Your task to perform on an android device: change notifications settings Image 0: 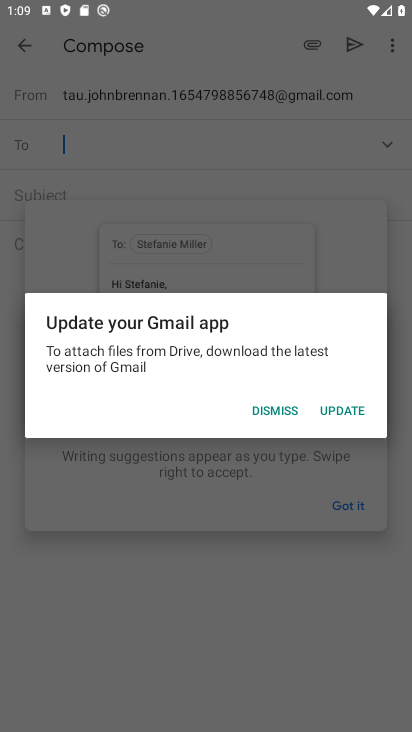
Step 0: press home button
Your task to perform on an android device: change notifications settings Image 1: 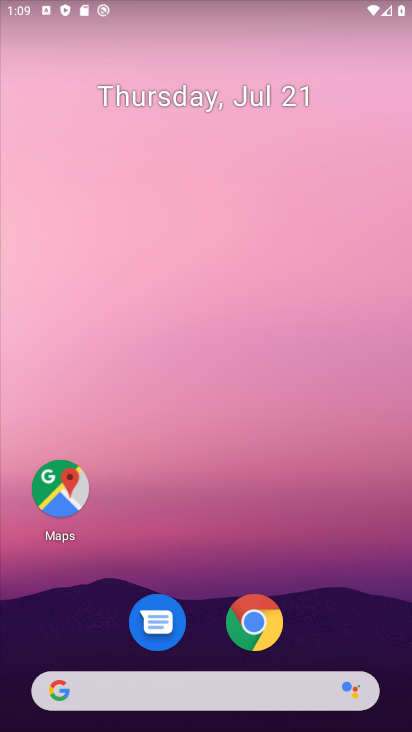
Step 1: drag from (234, 712) to (299, 202)
Your task to perform on an android device: change notifications settings Image 2: 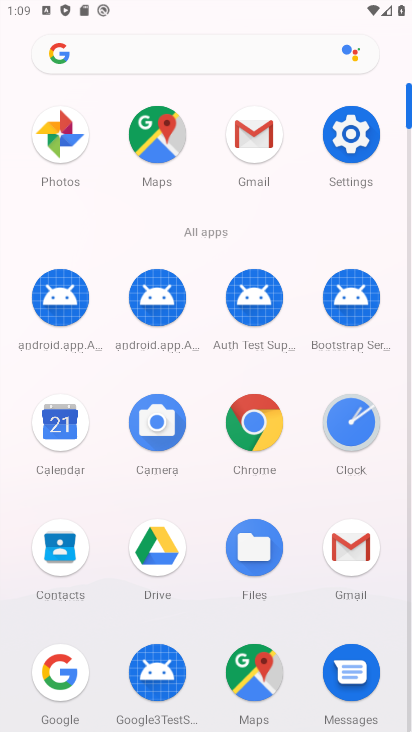
Step 2: click (355, 143)
Your task to perform on an android device: change notifications settings Image 3: 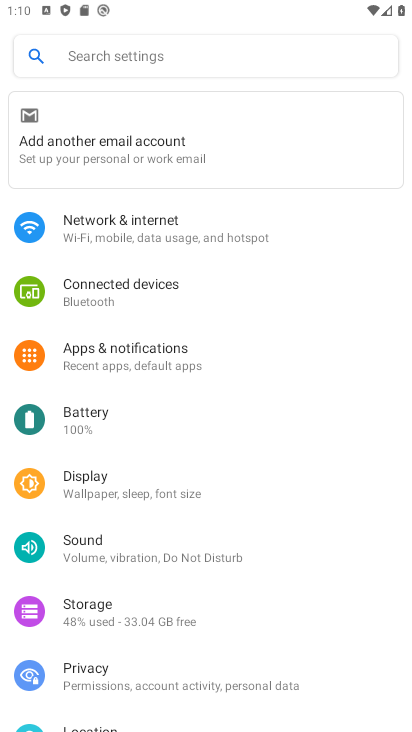
Step 3: click (105, 58)
Your task to perform on an android device: change notifications settings Image 4: 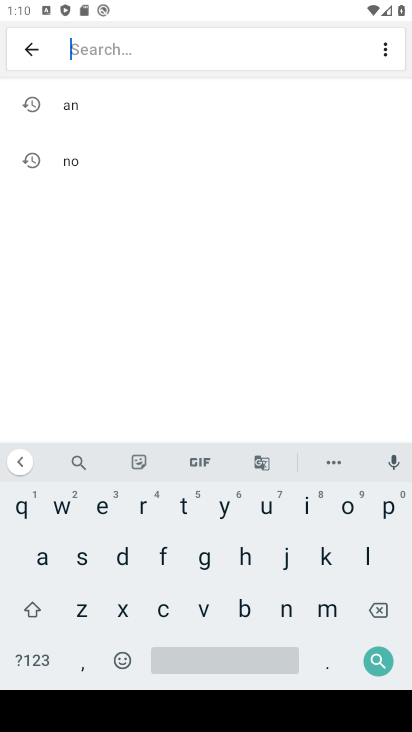
Step 4: click (94, 161)
Your task to perform on an android device: change notifications settings Image 5: 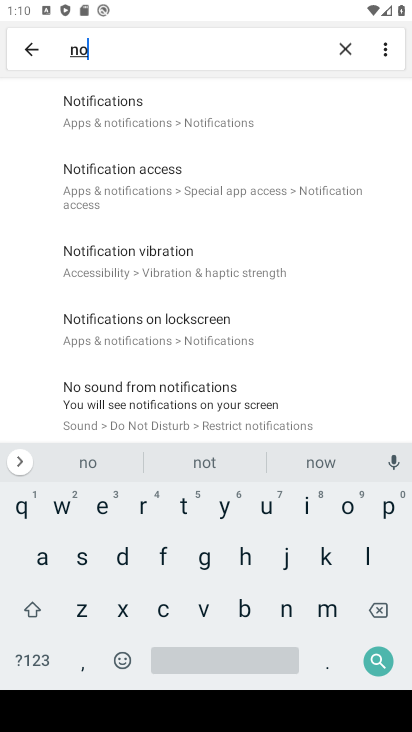
Step 5: click (148, 106)
Your task to perform on an android device: change notifications settings Image 6: 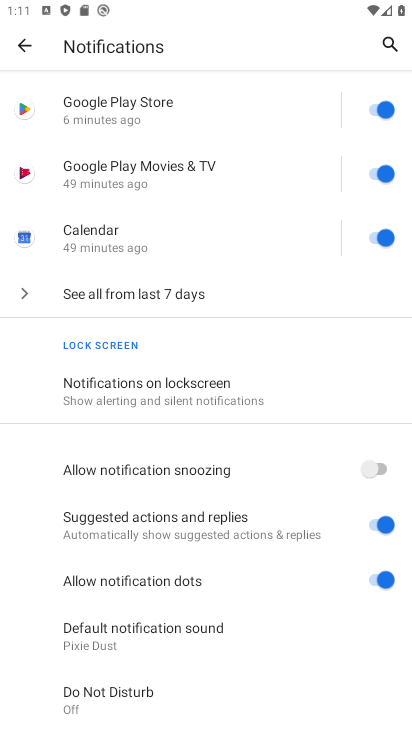
Step 6: click (148, 386)
Your task to perform on an android device: change notifications settings Image 7: 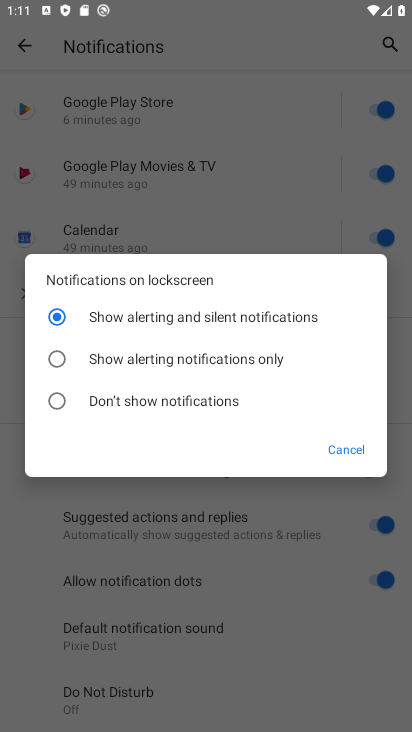
Step 7: click (153, 357)
Your task to perform on an android device: change notifications settings Image 8: 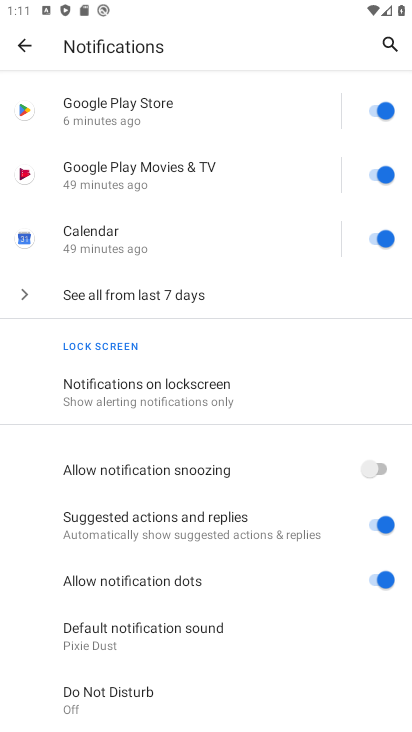
Step 8: task complete